Your task to perform on an android device: toggle notifications settings in the gmail app Image 0: 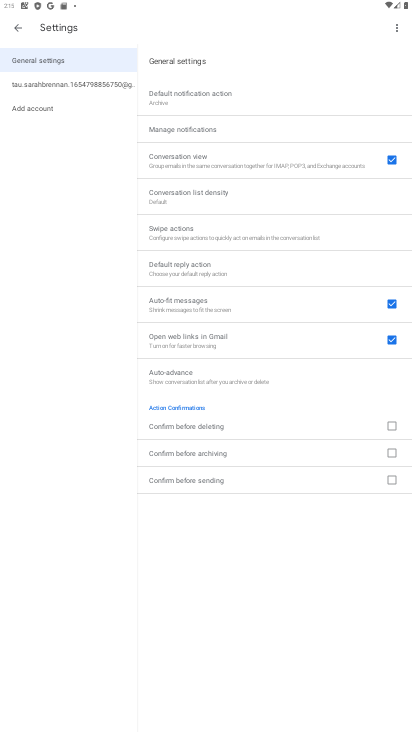
Step 0: press home button
Your task to perform on an android device: toggle notifications settings in the gmail app Image 1: 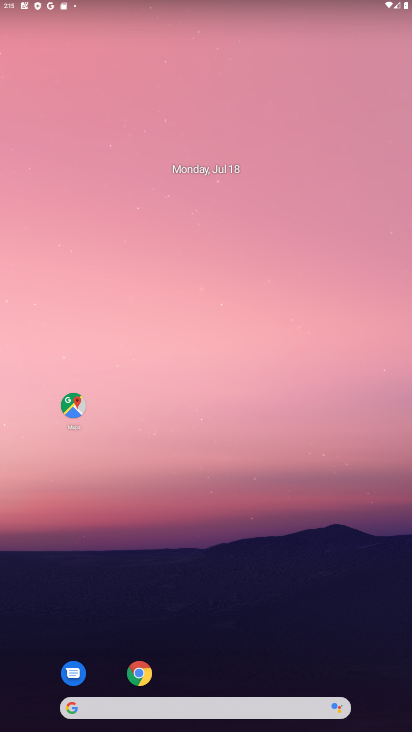
Step 1: drag from (194, 708) to (195, 249)
Your task to perform on an android device: toggle notifications settings in the gmail app Image 2: 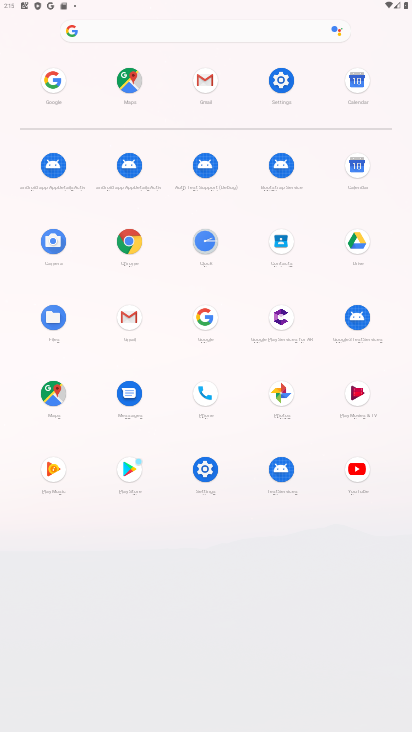
Step 2: click (130, 318)
Your task to perform on an android device: toggle notifications settings in the gmail app Image 3: 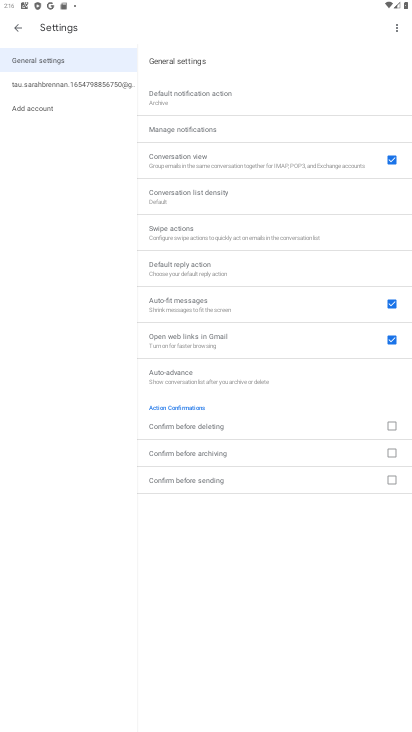
Step 3: click (166, 129)
Your task to perform on an android device: toggle notifications settings in the gmail app Image 4: 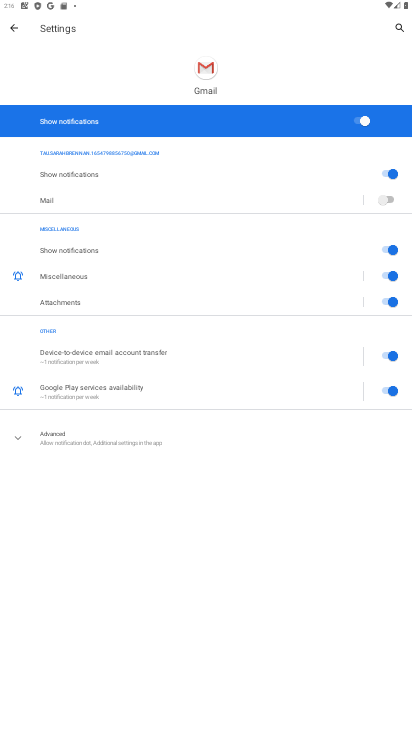
Step 4: click (358, 123)
Your task to perform on an android device: toggle notifications settings in the gmail app Image 5: 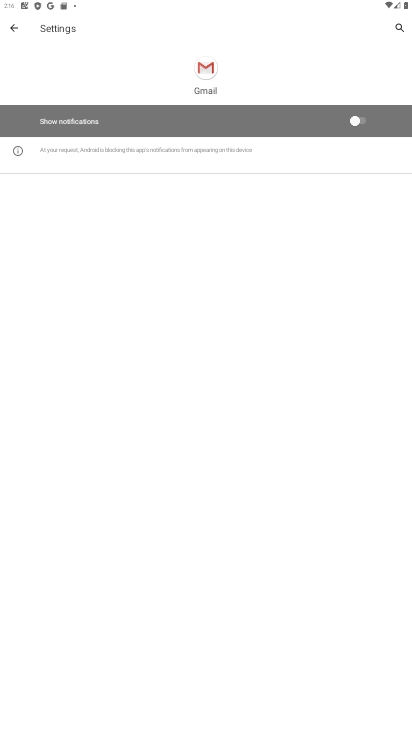
Step 5: task complete